Your task to perform on an android device: toggle improve location accuracy Image 0: 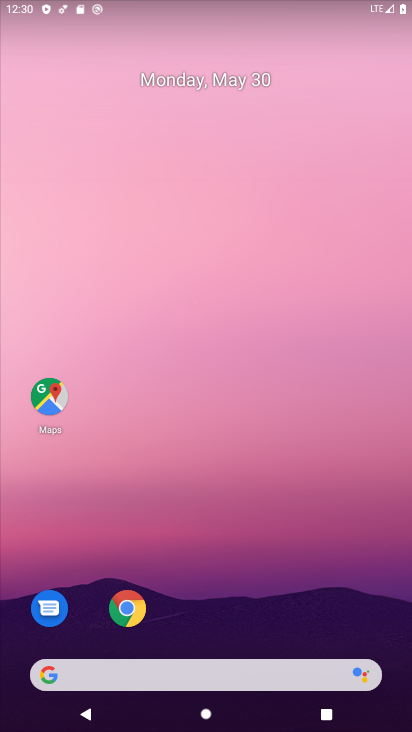
Step 0: drag from (205, 558) to (209, 76)
Your task to perform on an android device: toggle improve location accuracy Image 1: 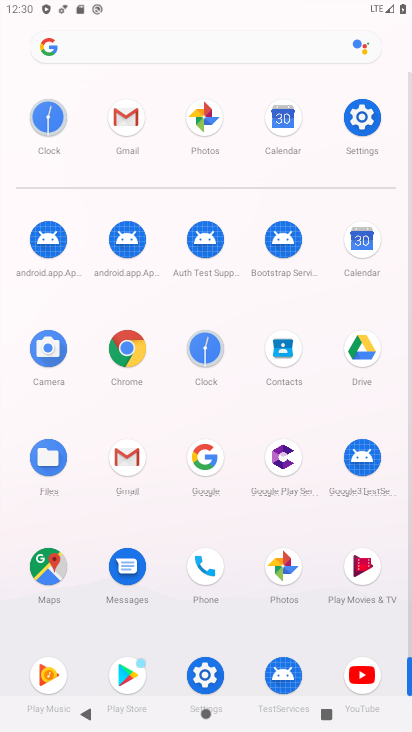
Step 1: click (368, 272)
Your task to perform on an android device: toggle improve location accuracy Image 2: 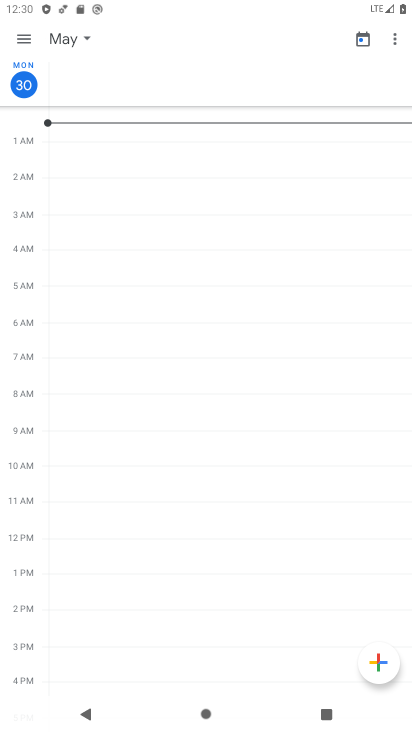
Step 2: press back button
Your task to perform on an android device: toggle improve location accuracy Image 3: 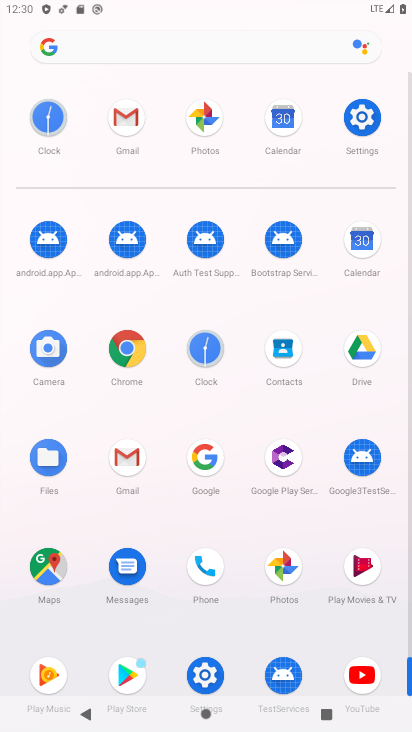
Step 3: click (376, 116)
Your task to perform on an android device: toggle improve location accuracy Image 4: 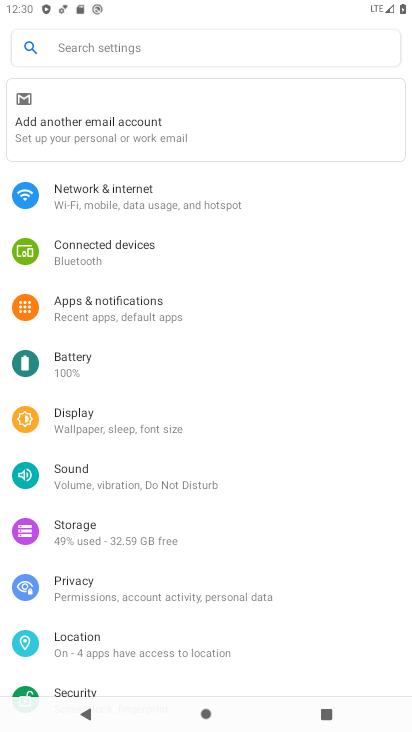
Step 4: click (135, 637)
Your task to perform on an android device: toggle improve location accuracy Image 5: 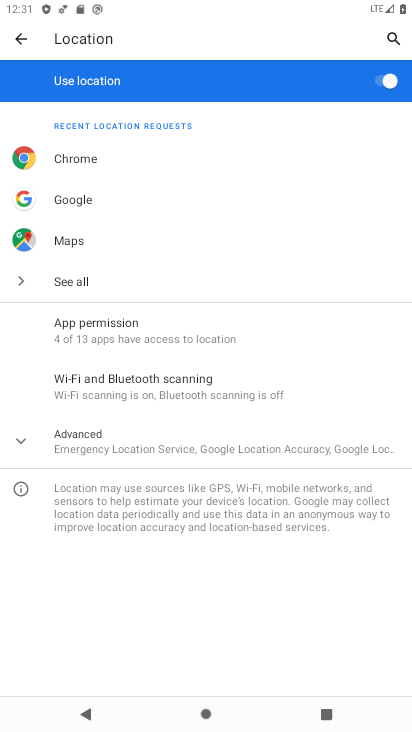
Step 5: click (171, 442)
Your task to perform on an android device: toggle improve location accuracy Image 6: 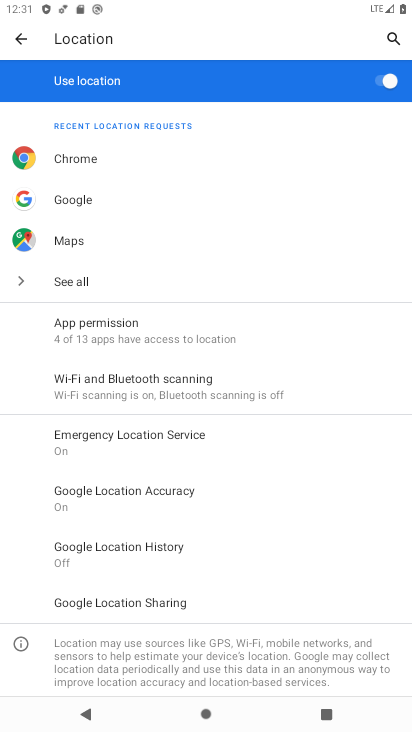
Step 6: click (175, 484)
Your task to perform on an android device: toggle improve location accuracy Image 7: 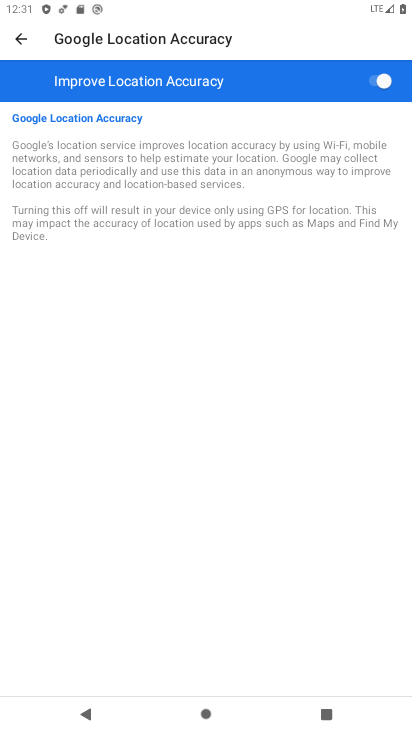
Step 7: click (364, 80)
Your task to perform on an android device: toggle improve location accuracy Image 8: 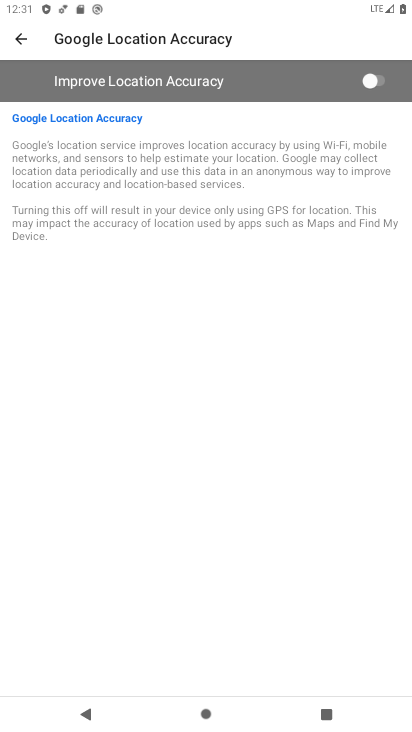
Step 8: task complete